Your task to perform on an android device: Open display settings Image 0: 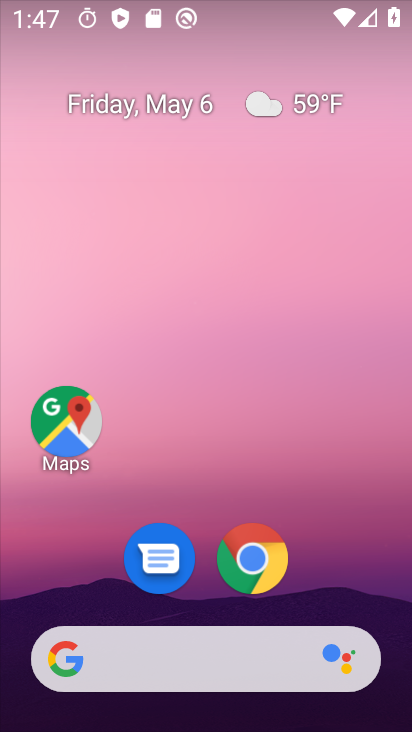
Step 0: drag from (221, 727) to (221, 34)
Your task to perform on an android device: Open display settings Image 1: 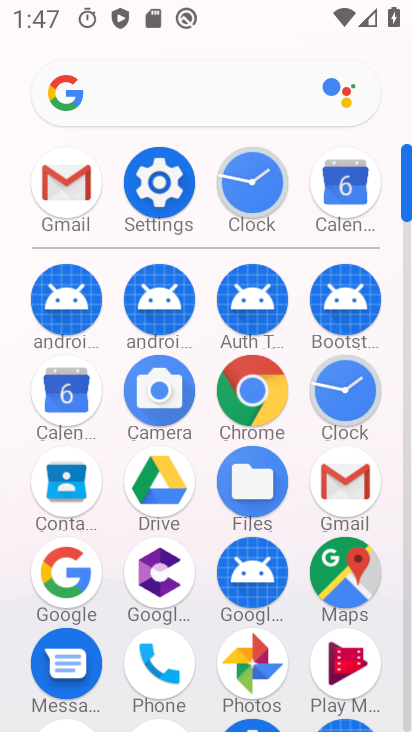
Step 1: click (156, 183)
Your task to perform on an android device: Open display settings Image 2: 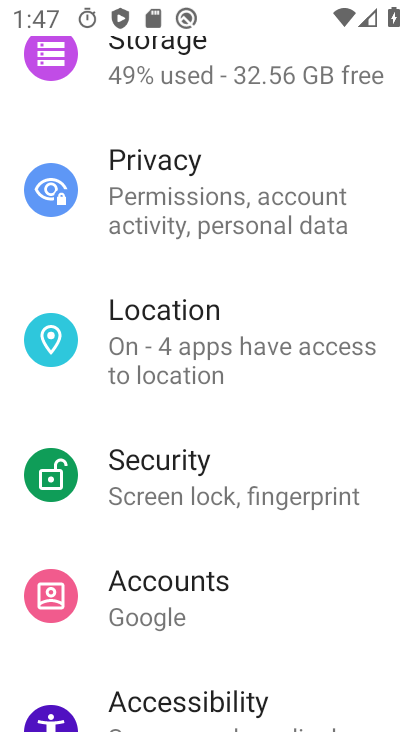
Step 2: drag from (206, 160) to (253, 493)
Your task to perform on an android device: Open display settings Image 3: 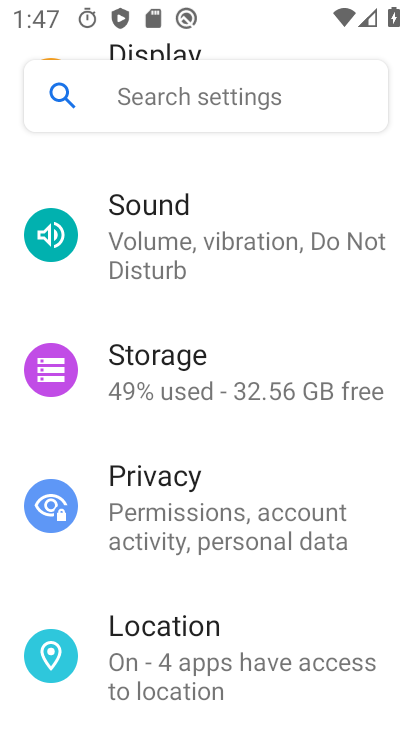
Step 3: drag from (222, 200) to (218, 490)
Your task to perform on an android device: Open display settings Image 4: 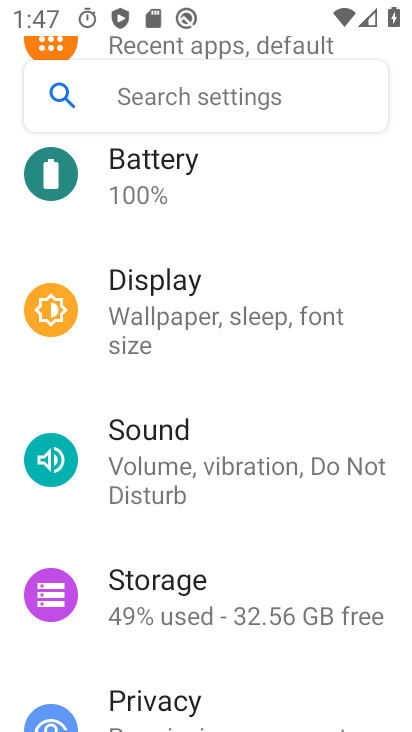
Step 4: click (182, 308)
Your task to perform on an android device: Open display settings Image 5: 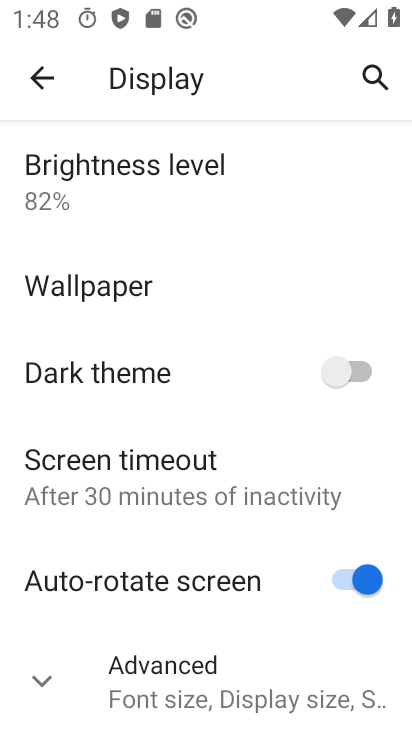
Step 5: task complete